Your task to perform on an android device: Open location settings Image 0: 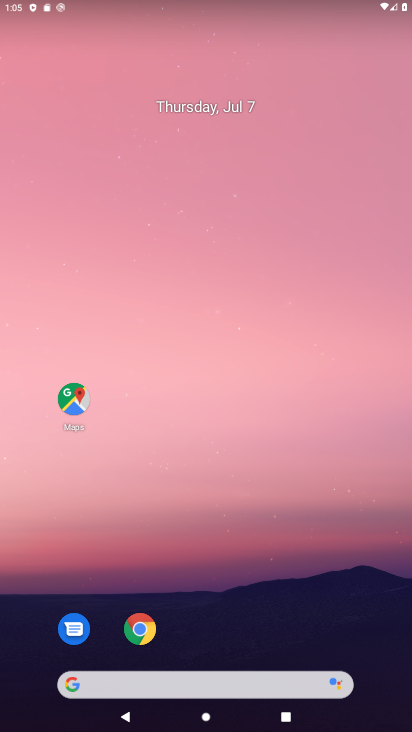
Step 0: drag from (243, 655) to (287, 197)
Your task to perform on an android device: Open location settings Image 1: 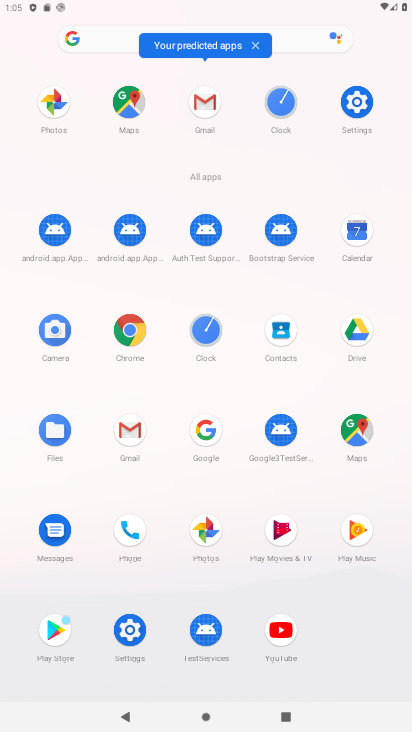
Step 1: click (143, 636)
Your task to perform on an android device: Open location settings Image 2: 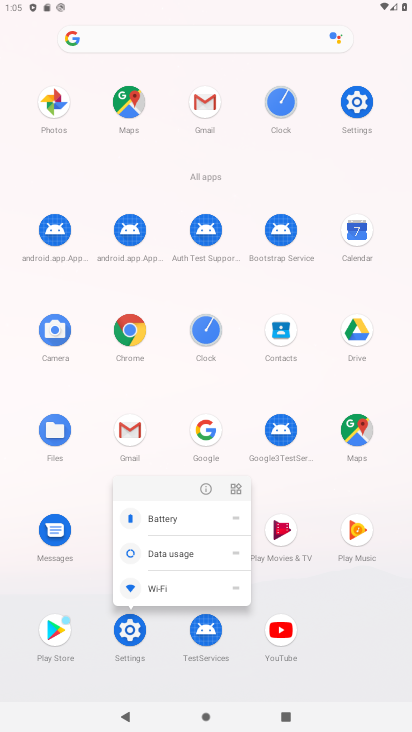
Step 2: click (128, 634)
Your task to perform on an android device: Open location settings Image 3: 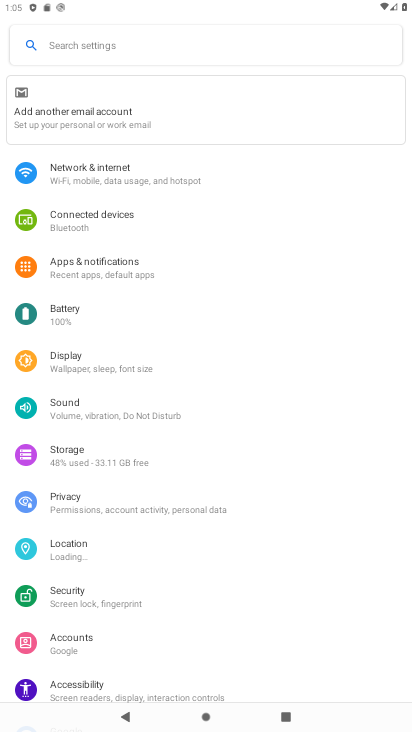
Step 3: click (94, 544)
Your task to perform on an android device: Open location settings Image 4: 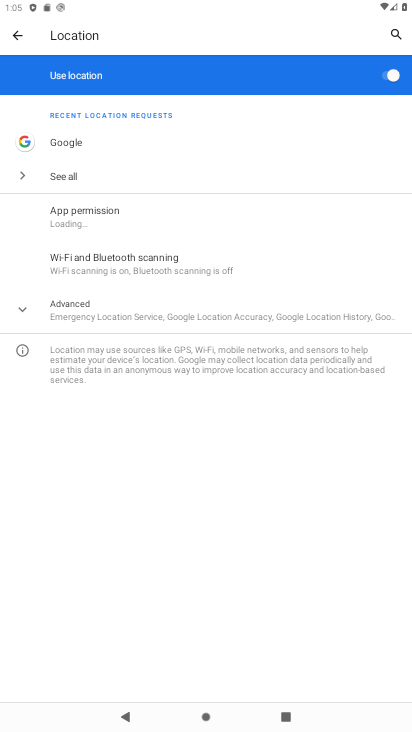
Step 4: task complete